Your task to perform on an android device: delete browsing data in the chrome app Image 0: 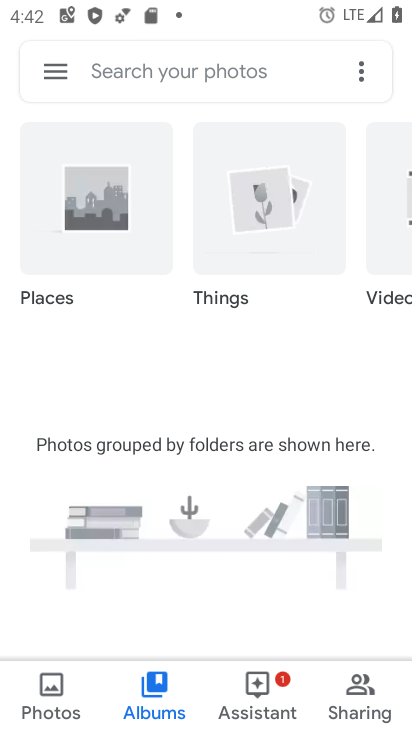
Step 0: press home button
Your task to perform on an android device: delete browsing data in the chrome app Image 1: 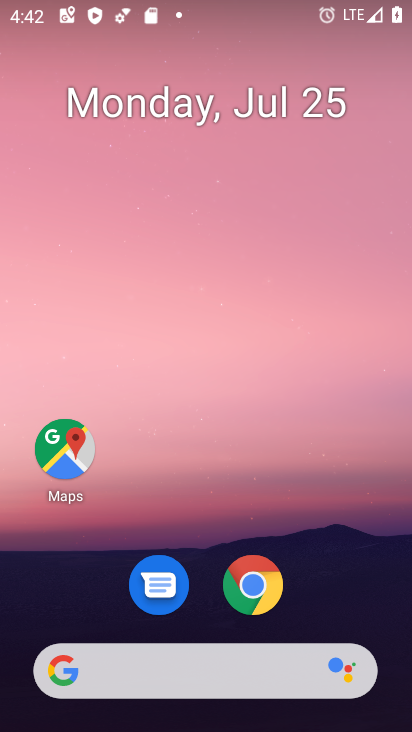
Step 1: click (262, 589)
Your task to perform on an android device: delete browsing data in the chrome app Image 2: 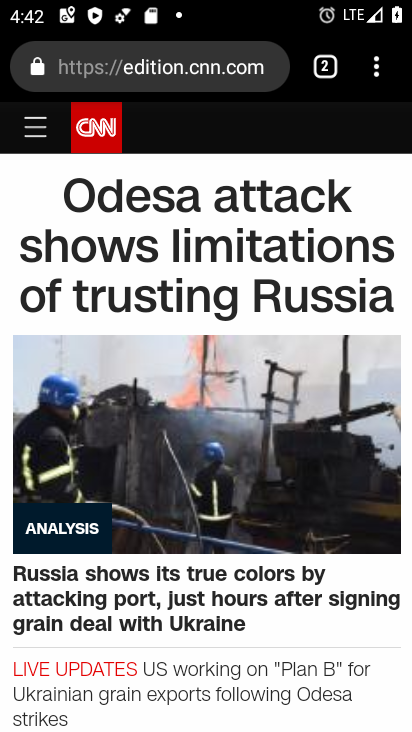
Step 2: click (381, 74)
Your task to perform on an android device: delete browsing data in the chrome app Image 3: 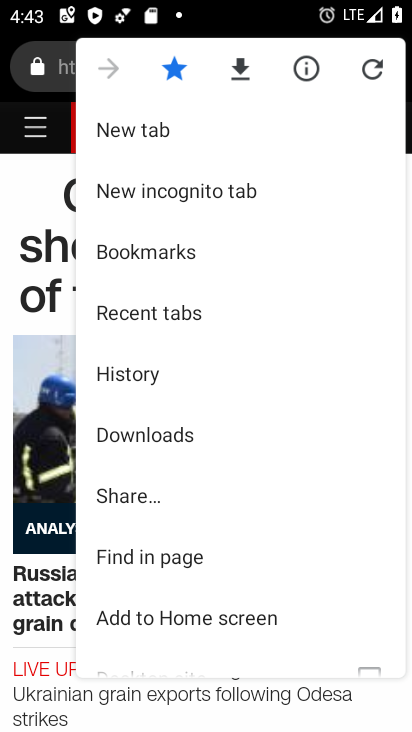
Step 3: click (143, 374)
Your task to perform on an android device: delete browsing data in the chrome app Image 4: 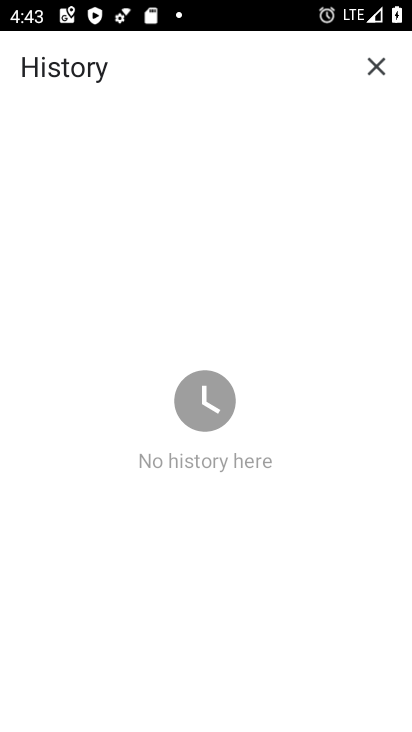
Step 4: task complete